Your task to perform on an android device: turn off smart reply in the gmail app Image 0: 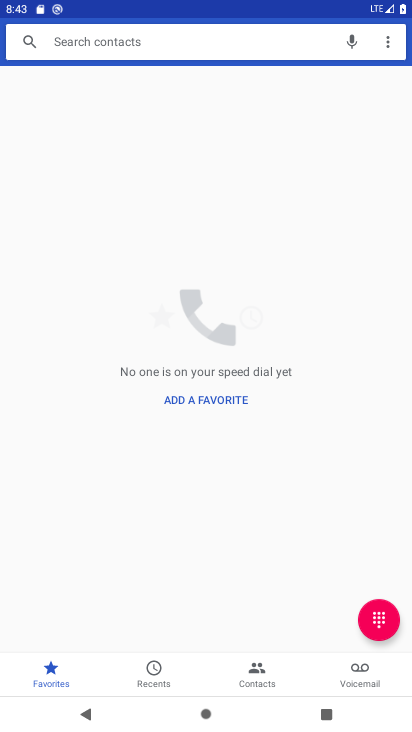
Step 0: press home button
Your task to perform on an android device: turn off smart reply in the gmail app Image 1: 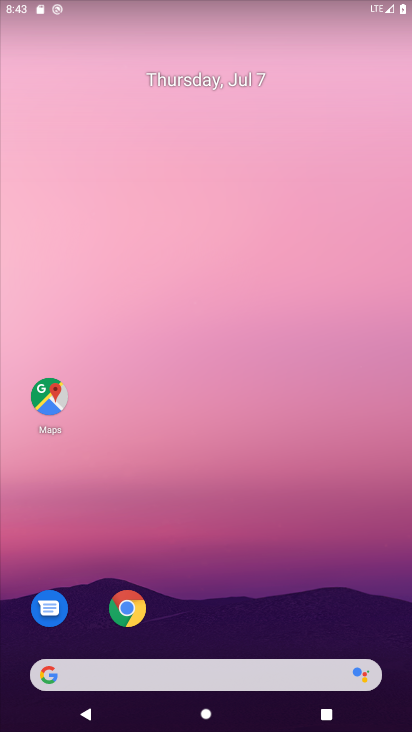
Step 1: drag from (350, 571) to (357, 97)
Your task to perform on an android device: turn off smart reply in the gmail app Image 2: 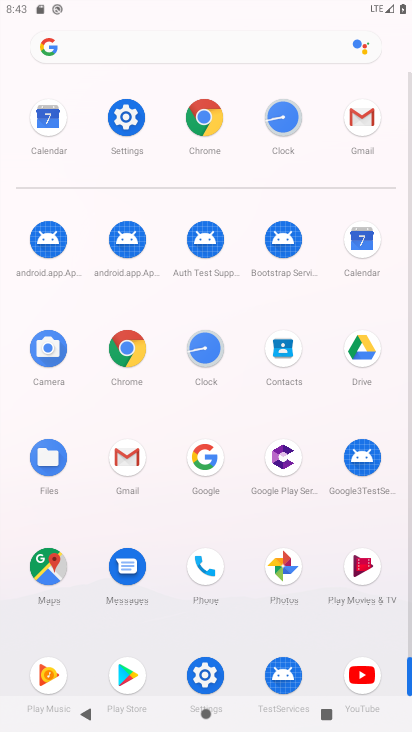
Step 2: click (137, 455)
Your task to perform on an android device: turn off smart reply in the gmail app Image 3: 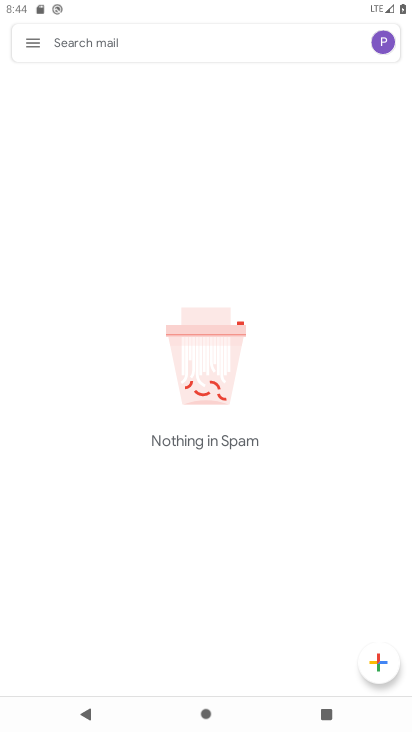
Step 3: click (33, 42)
Your task to perform on an android device: turn off smart reply in the gmail app Image 4: 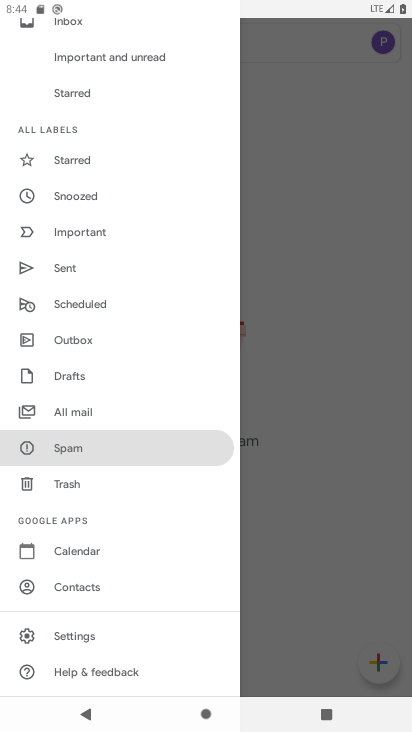
Step 4: drag from (173, 314) to (175, 217)
Your task to perform on an android device: turn off smart reply in the gmail app Image 5: 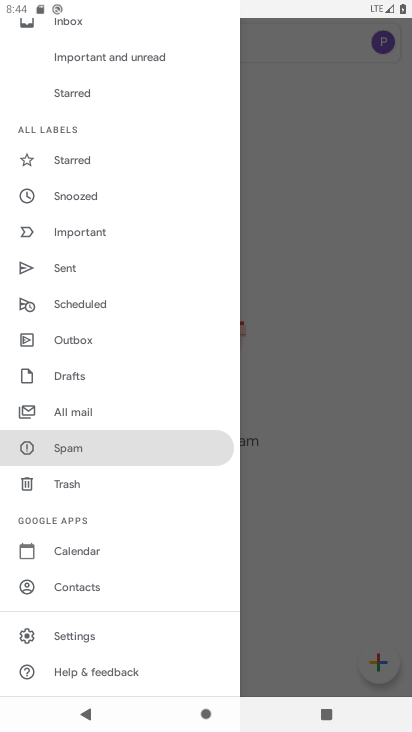
Step 5: click (134, 632)
Your task to perform on an android device: turn off smart reply in the gmail app Image 6: 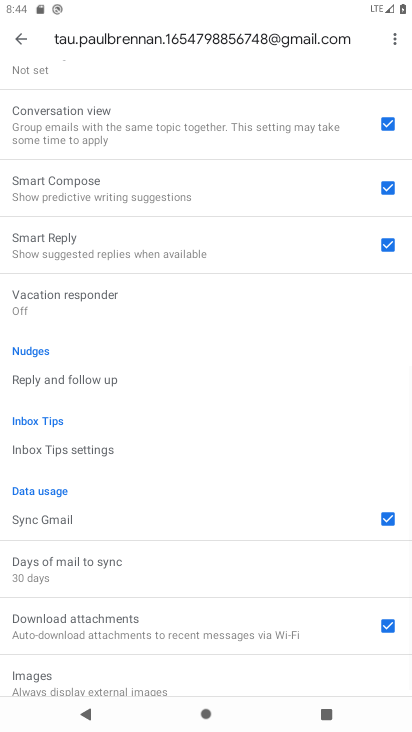
Step 6: drag from (229, 516) to (237, 425)
Your task to perform on an android device: turn off smart reply in the gmail app Image 7: 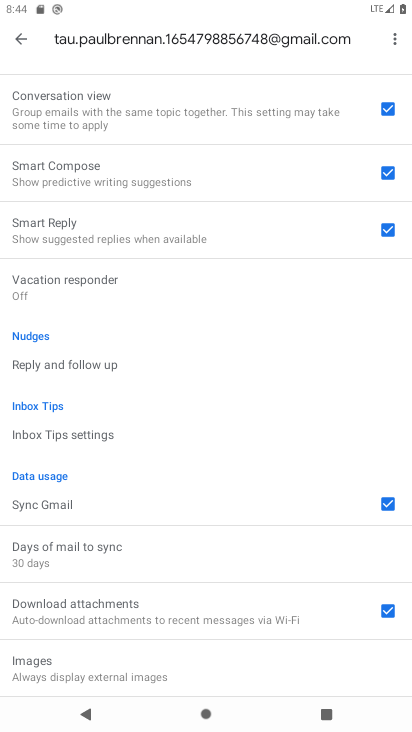
Step 7: drag from (272, 350) to (278, 447)
Your task to perform on an android device: turn off smart reply in the gmail app Image 8: 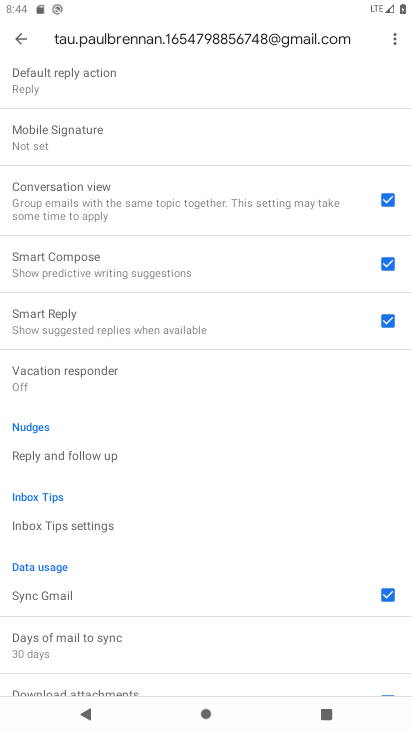
Step 8: drag from (277, 328) to (274, 459)
Your task to perform on an android device: turn off smart reply in the gmail app Image 9: 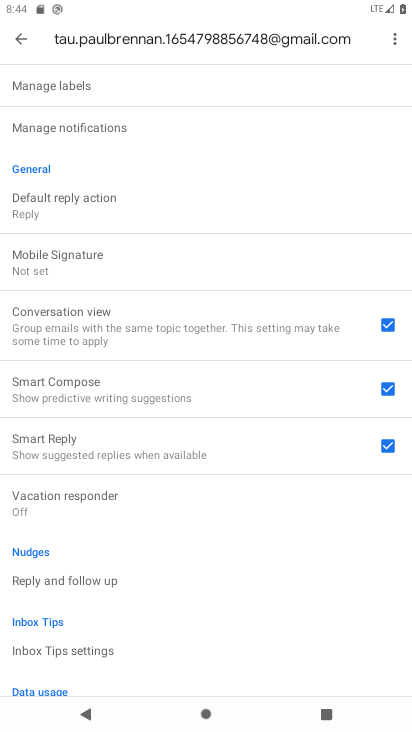
Step 9: drag from (273, 267) to (280, 373)
Your task to perform on an android device: turn off smart reply in the gmail app Image 10: 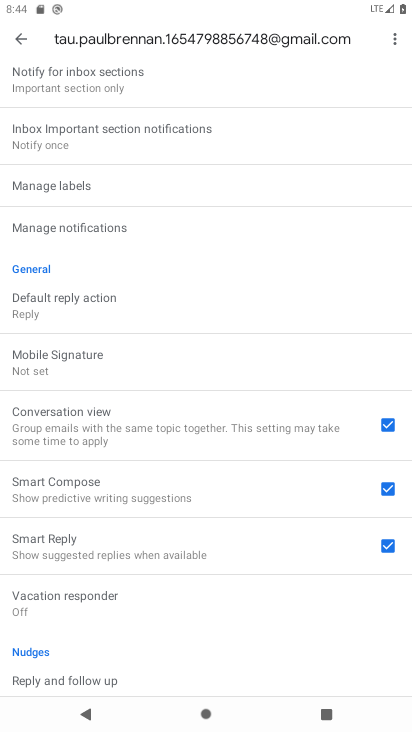
Step 10: drag from (286, 258) to (309, 421)
Your task to perform on an android device: turn off smart reply in the gmail app Image 11: 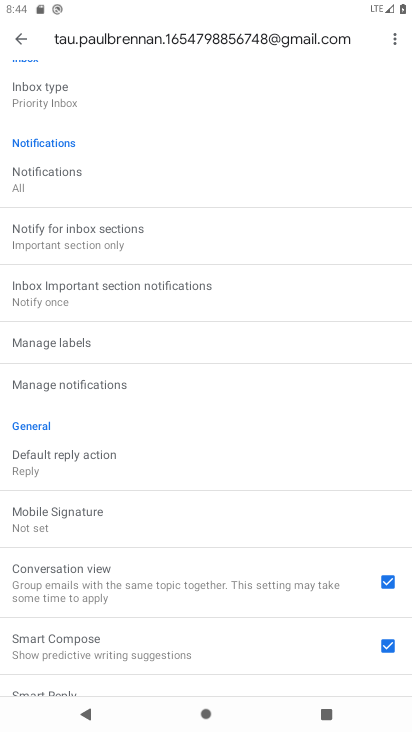
Step 11: drag from (314, 269) to (319, 388)
Your task to perform on an android device: turn off smart reply in the gmail app Image 12: 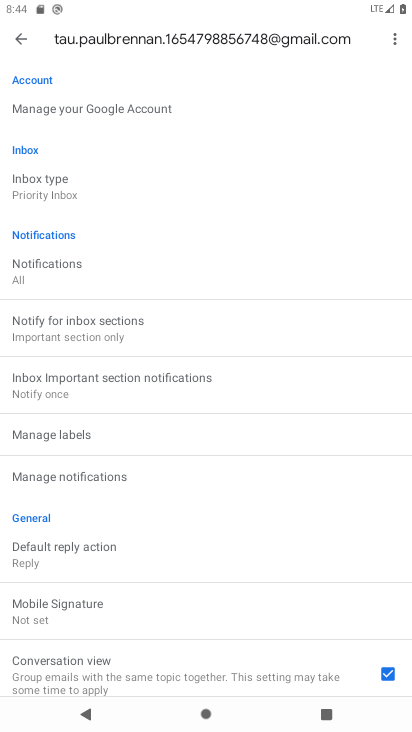
Step 12: drag from (308, 247) to (317, 378)
Your task to perform on an android device: turn off smart reply in the gmail app Image 13: 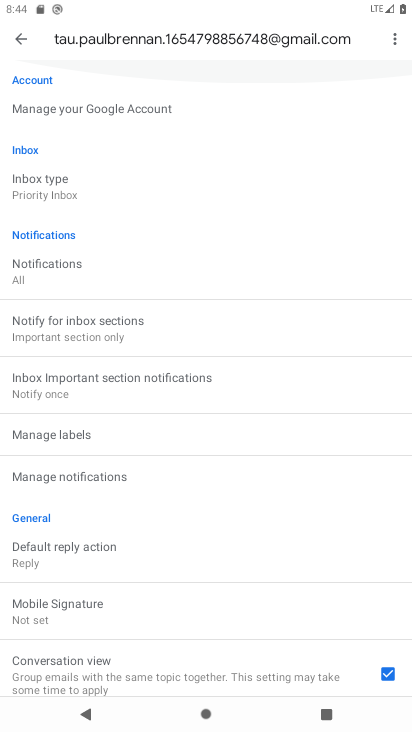
Step 13: drag from (309, 466) to (322, 314)
Your task to perform on an android device: turn off smart reply in the gmail app Image 14: 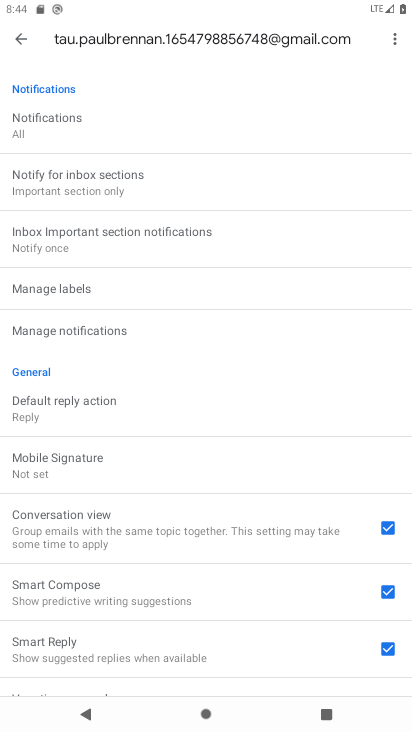
Step 14: drag from (314, 517) to (315, 383)
Your task to perform on an android device: turn off smart reply in the gmail app Image 15: 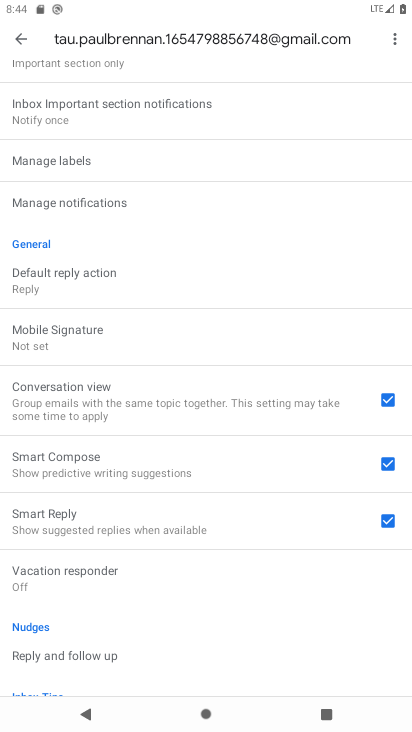
Step 15: click (395, 518)
Your task to perform on an android device: turn off smart reply in the gmail app Image 16: 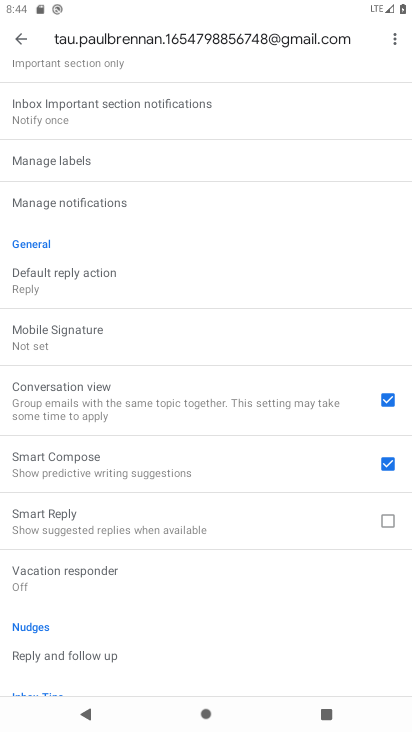
Step 16: task complete